Your task to perform on an android device: turn pop-ups on in chrome Image 0: 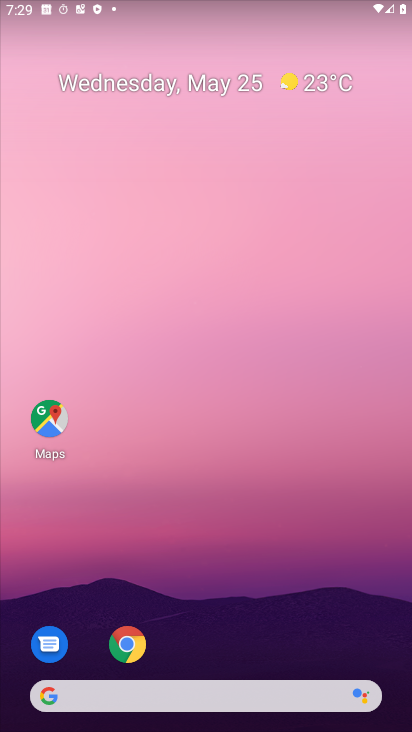
Step 0: drag from (286, 698) to (208, 159)
Your task to perform on an android device: turn pop-ups on in chrome Image 1: 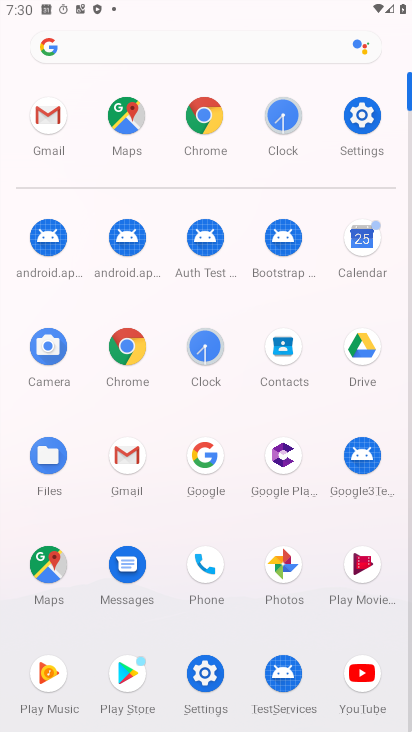
Step 1: click (199, 113)
Your task to perform on an android device: turn pop-ups on in chrome Image 2: 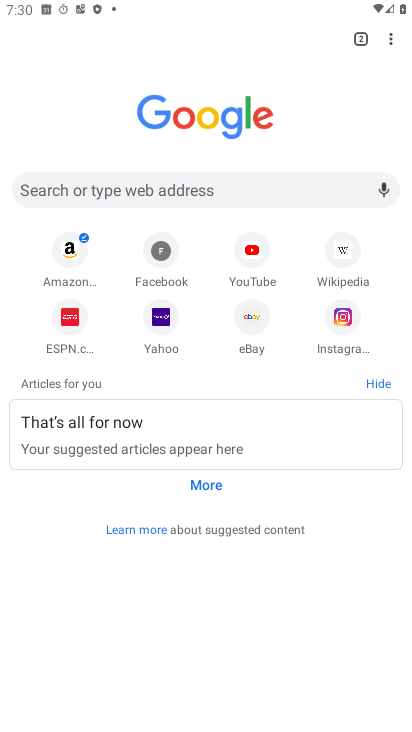
Step 2: click (389, 41)
Your task to perform on an android device: turn pop-ups on in chrome Image 3: 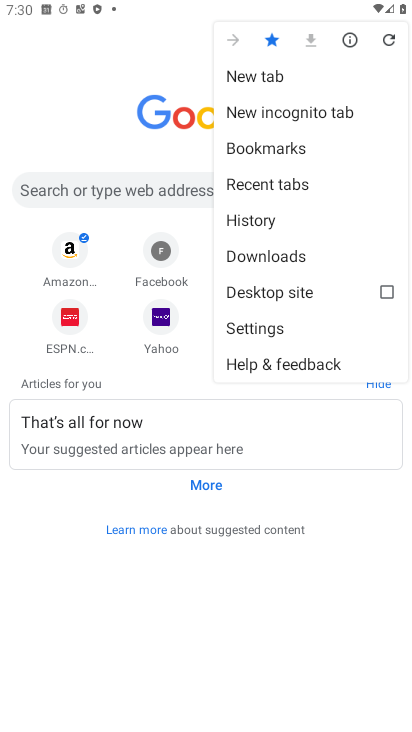
Step 3: click (270, 311)
Your task to perform on an android device: turn pop-ups on in chrome Image 4: 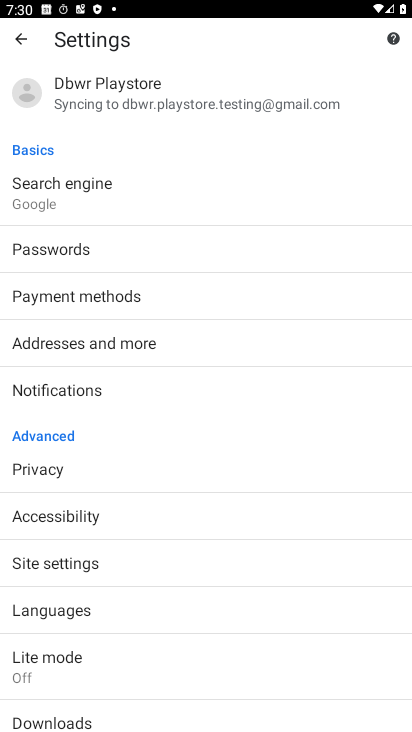
Step 4: click (99, 562)
Your task to perform on an android device: turn pop-ups on in chrome Image 5: 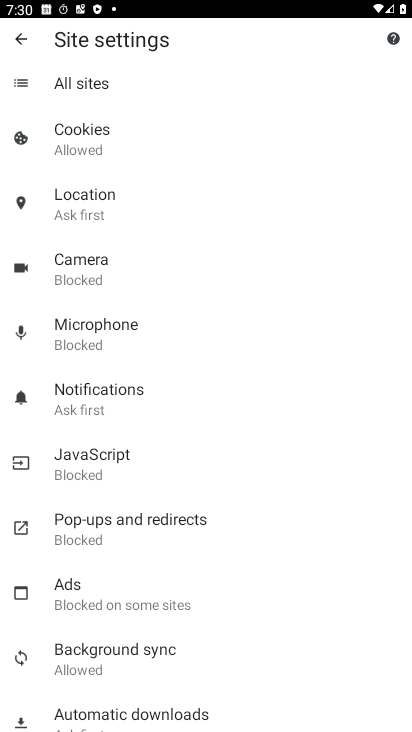
Step 5: click (137, 512)
Your task to perform on an android device: turn pop-ups on in chrome Image 6: 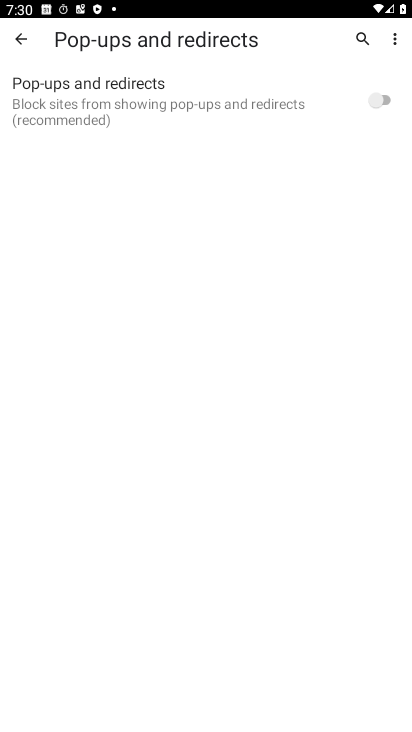
Step 6: click (379, 103)
Your task to perform on an android device: turn pop-ups on in chrome Image 7: 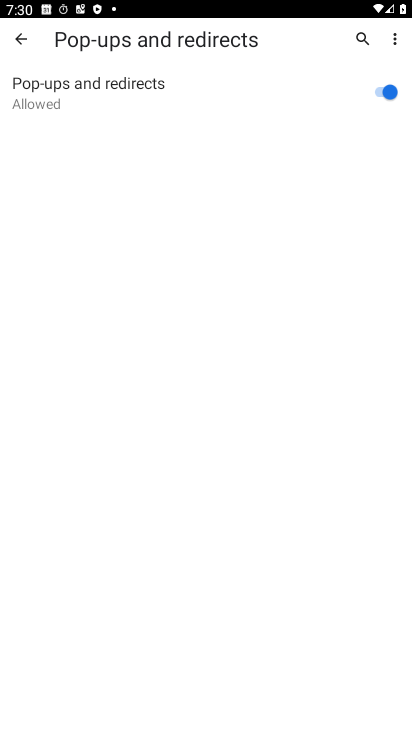
Step 7: task complete